Your task to perform on an android device: Search for sushi restaurants on Maps Image 0: 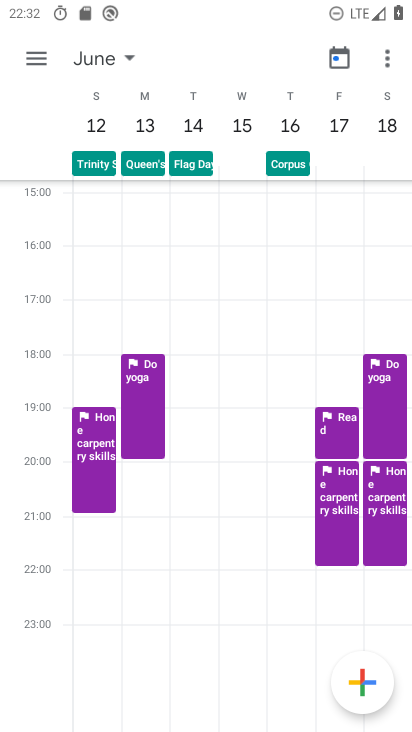
Step 0: press home button
Your task to perform on an android device: Search for sushi restaurants on Maps Image 1: 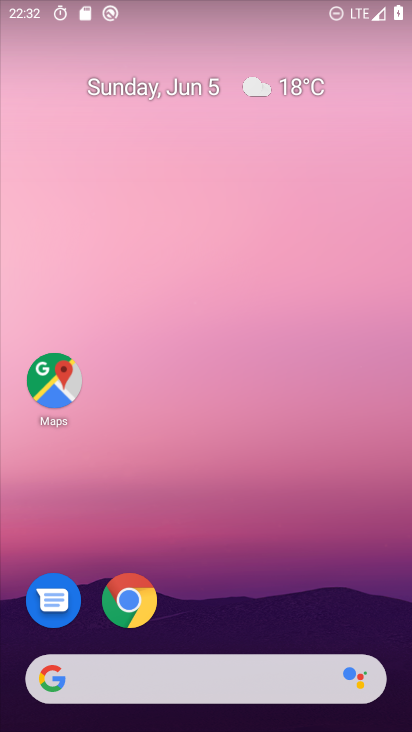
Step 1: click (57, 367)
Your task to perform on an android device: Search for sushi restaurants on Maps Image 2: 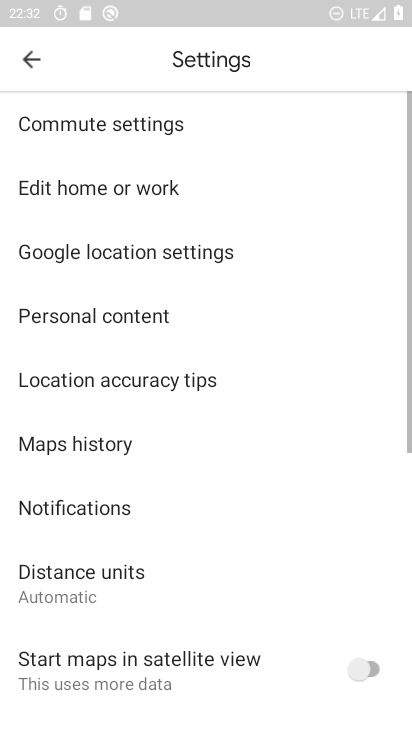
Step 2: click (37, 76)
Your task to perform on an android device: Search for sushi restaurants on Maps Image 3: 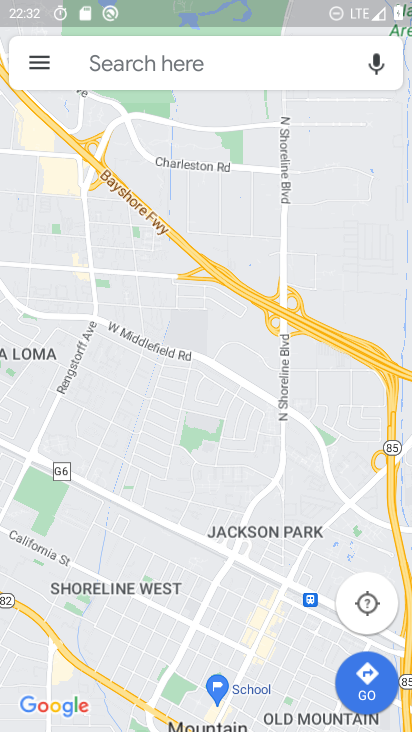
Step 3: click (214, 59)
Your task to perform on an android device: Search for sushi restaurants on Maps Image 4: 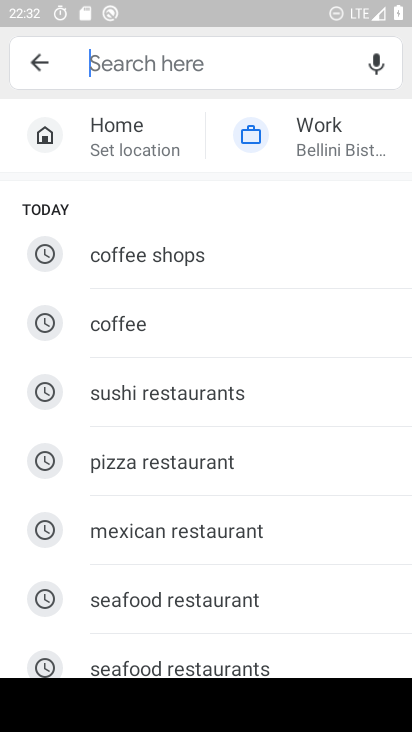
Step 4: click (167, 393)
Your task to perform on an android device: Search for sushi restaurants on Maps Image 5: 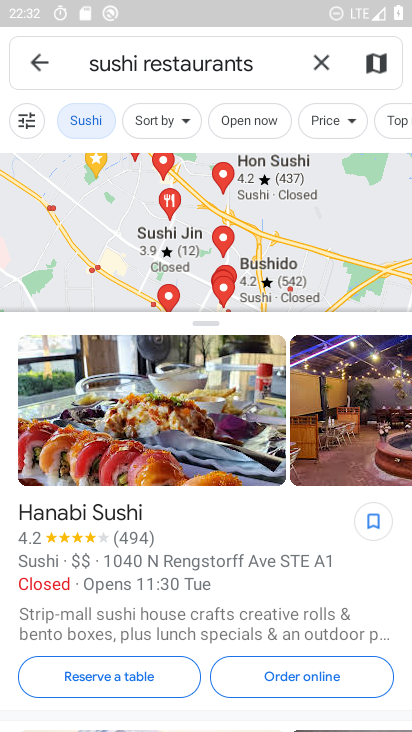
Step 5: task complete